Your task to perform on an android device: toggle javascript in the chrome app Image 0: 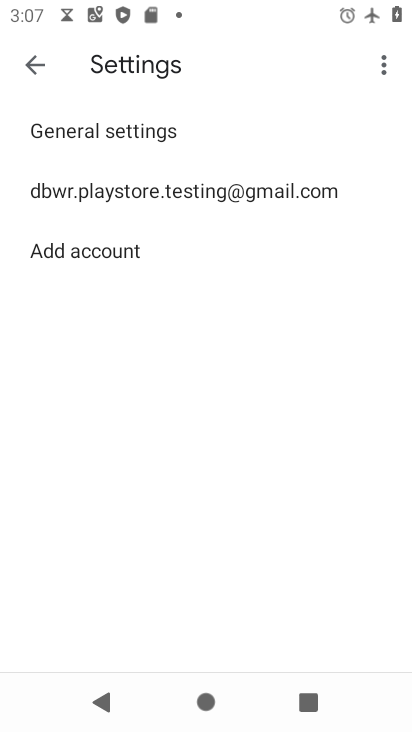
Step 0: press back button
Your task to perform on an android device: toggle javascript in the chrome app Image 1: 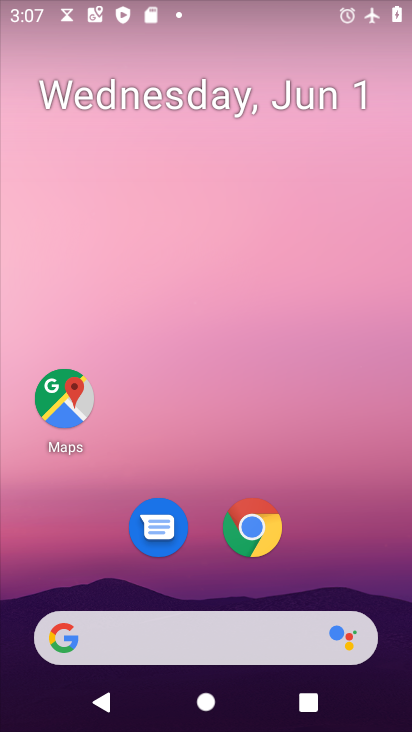
Step 1: click (252, 525)
Your task to perform on an android device: toggle javascript in the chrome app Image 2: 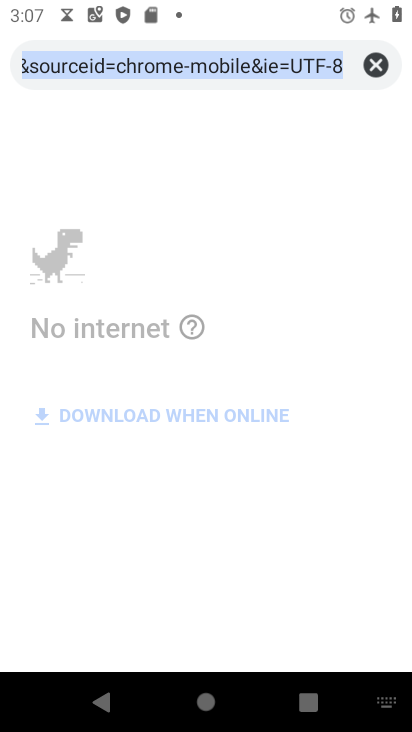
Step 2: click (375, 68)
Your task to perform on an android device: toggle javascript in the chrome app Image 3: 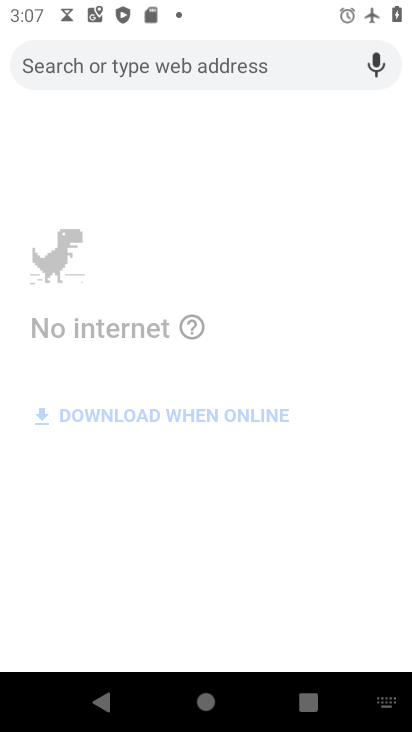
Step 3: press back button
Your task to perform on an android device: toggle javascript in the chrome app Image 4: 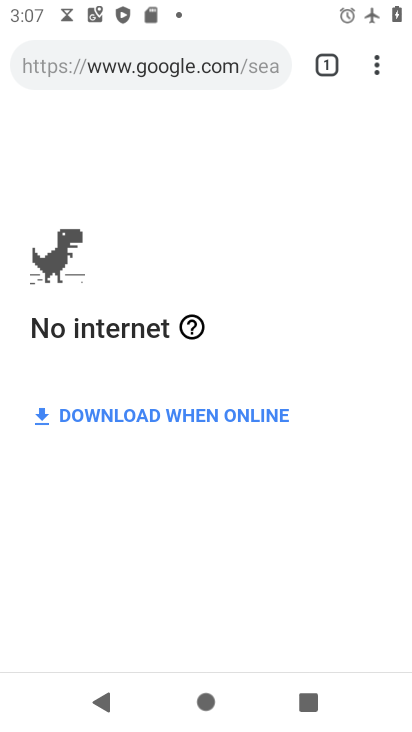
Step 4: click (372, 66)
Your task to perform on an android device: toggle javascript in the chrome app Image 5: 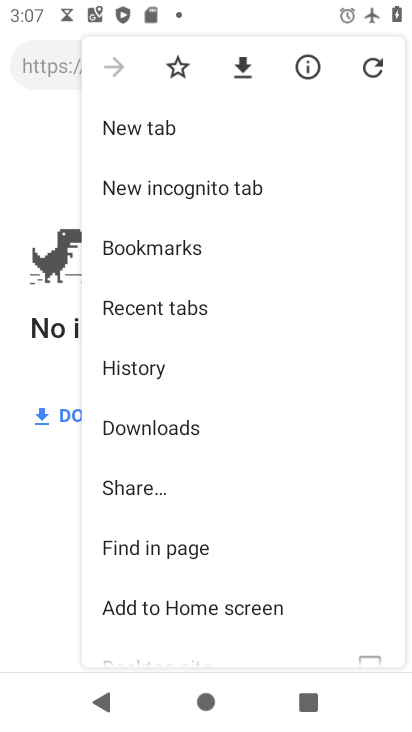
Step 5: drag from (166, 515) to (164, 430)
Your task to perform on an android device: toggle javascript in the chrome app Image 6: 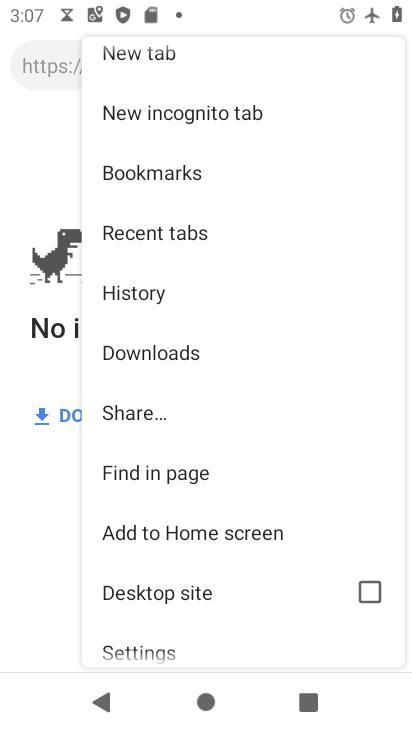
Step 6: drag from (161, 506) to (176, 412)
Your task to perform on an android device: toggle javascript in the chrome app Image 7: 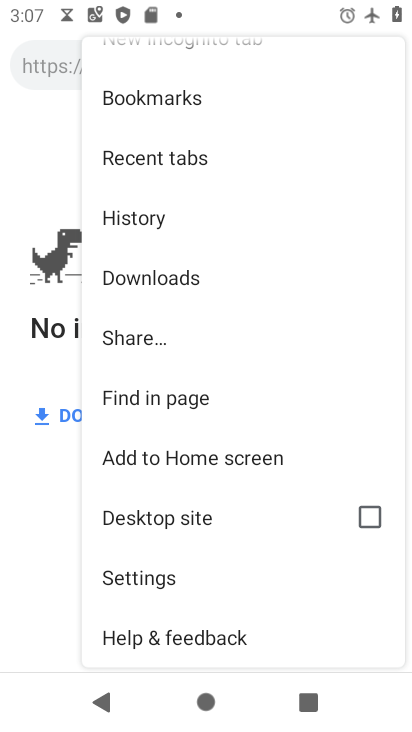
Step 7: drag from (153, 548) to (197, 444)
Your task to perform on an android device: toggle javascript in the chrome app Image 8: 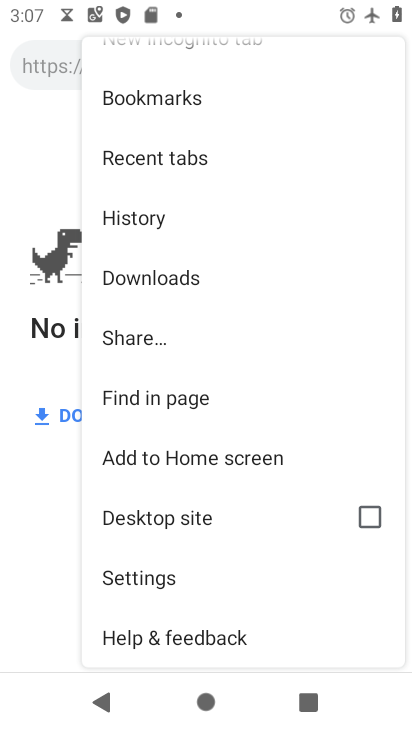
Step 8: click (168, 577)
Your task to perform on an android device: toggle javascript in the chrome app Image 9: 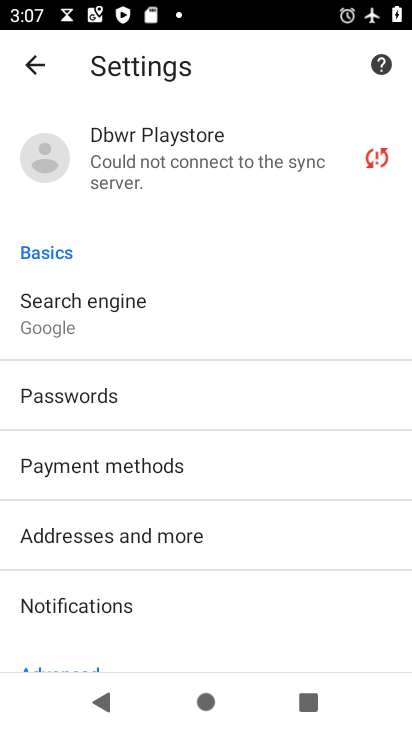
Step 9: drag from (176, 600) to (207, 474)
Your task to perform on an android device: toggle javascript in the chrome app Image 10: 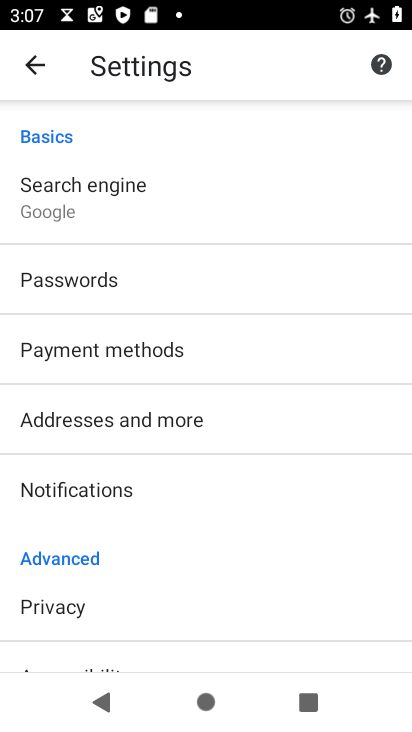
Step 10: drag from (174, 543) to (213, 450)
Your task to perform on an android device: toggle javascript in the chrome app Image 11: 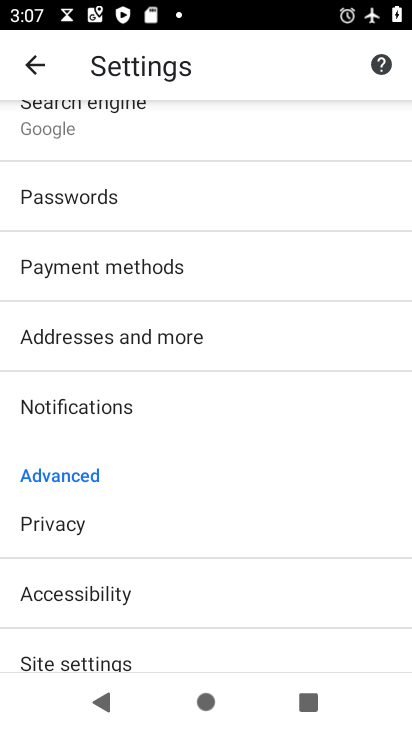
Step 11: drag from (178, 590) to (189, 490)
Your task to perform on an android device: toggle javascript in the chrome app Image 12: 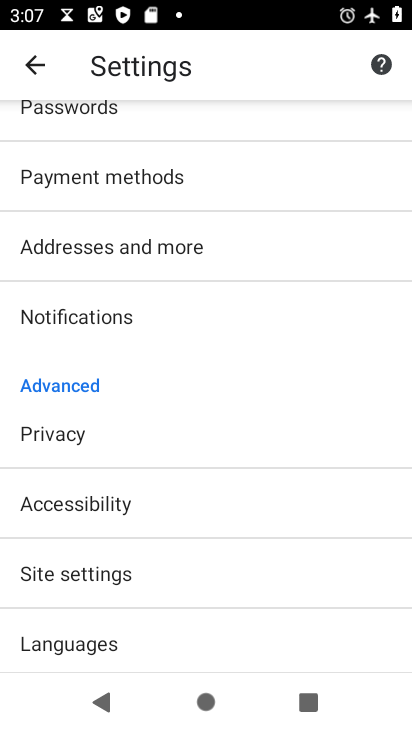
Step 12: drag from (158, 583) to (163, 438)
Your task to perform on an android device: toggle javascript in the chrome app Image 13: 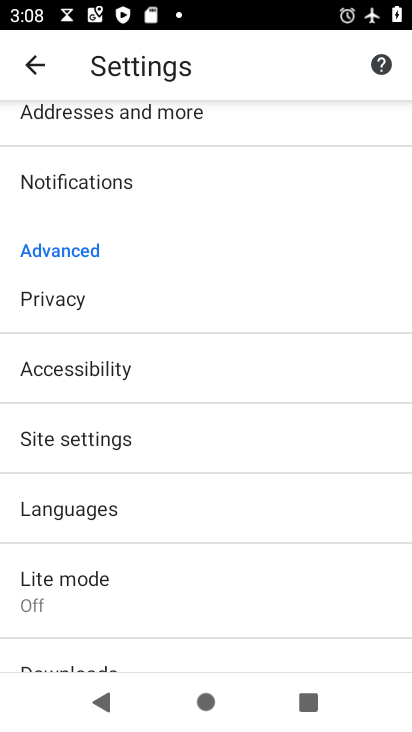
Step 13: click (109, 444)
Your task to perform on an android device: toggle javascript in the chrome app Image 14: 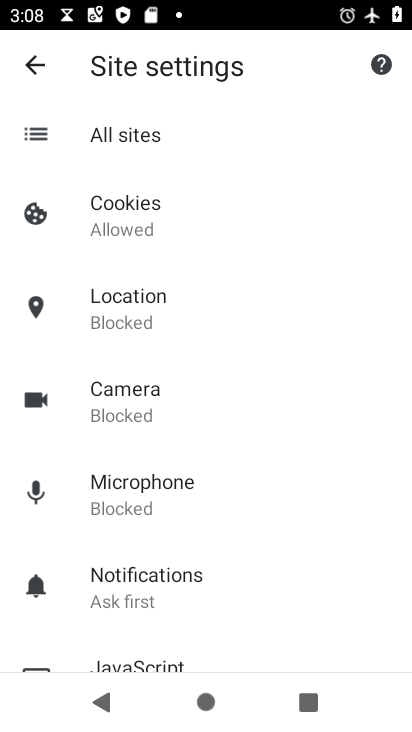
Step 14: drag from (186, 517) to (198, 424)
Your task to perform on an android device: toggle javascript in the chrome app Image 15: 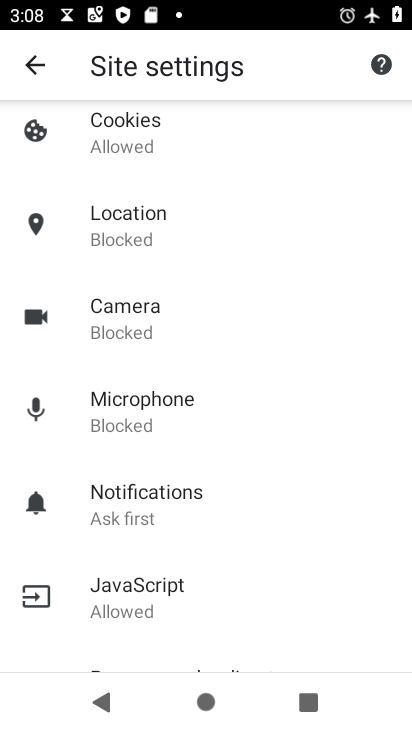
Step 15: drag from (154, 536) to (182, 442)
Your task to perform on an android device: toggle javascript in the chrome app Image 16: 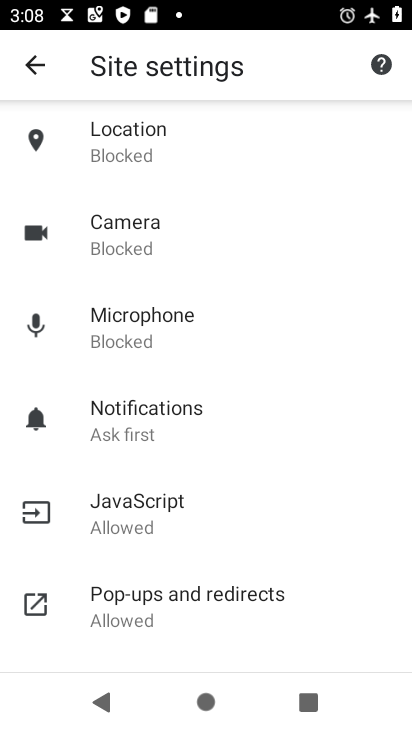
Step 16: click (156, 500)
Your task to perform on an android device: toggle javascript in the chrome app Image 17: 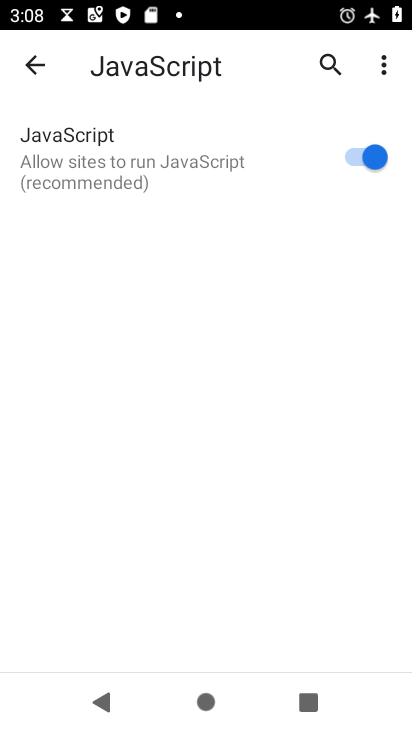
Step 17: click (357, 158)
Your task to perform on an android device: toggle javascript in the chrome app Image 18: 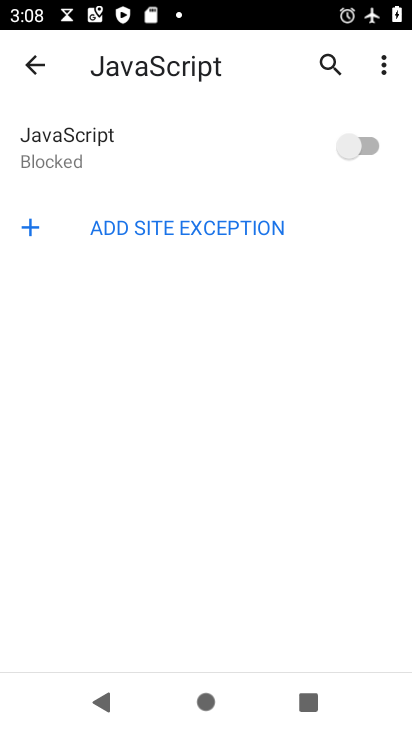
Step 18: task complete